Your task to perform on an android device: Open location settings Image 0: 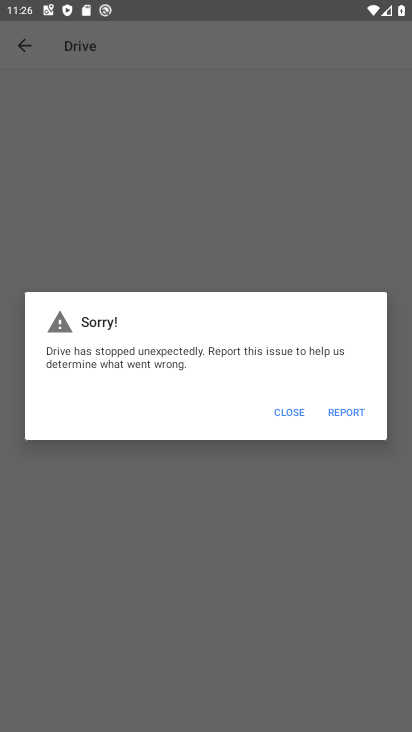
Step 0: press home button
Your task to perform on an android device: Open location settings Image 1: 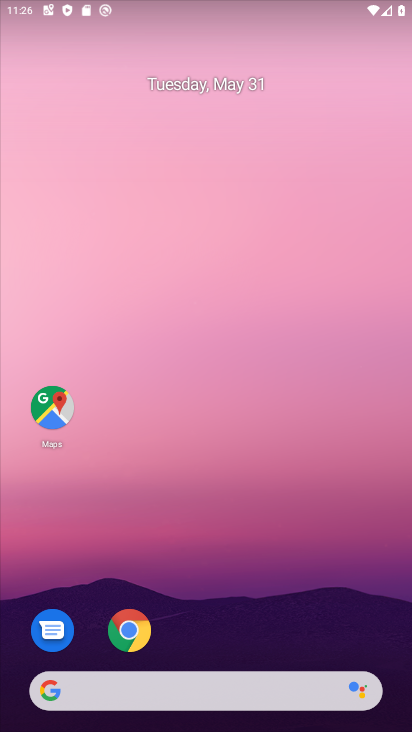
Step 1: drag from (308, 576) to (275, 92)
Your task to perform on an android device: Open location settings Image 2: 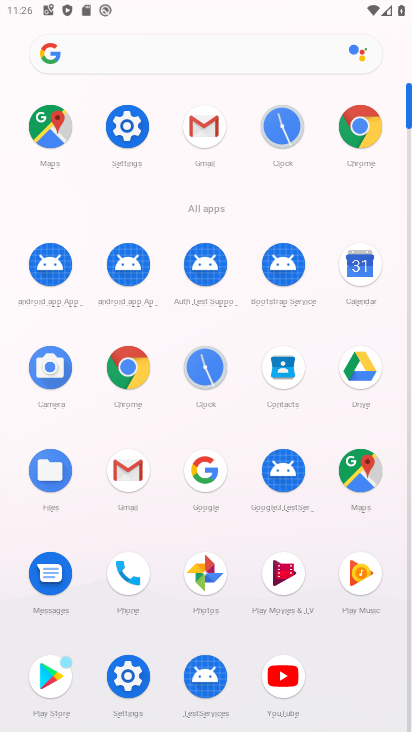
Step 2: click (113, 120)
Your task to perform on an android device: Open location settings Image 3: 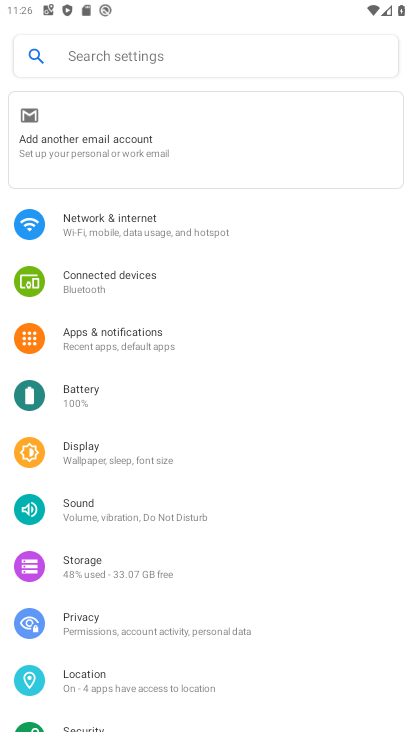
Step 3: click (122, 680)
Your task to perform on an android device: Open location settings Image 4: 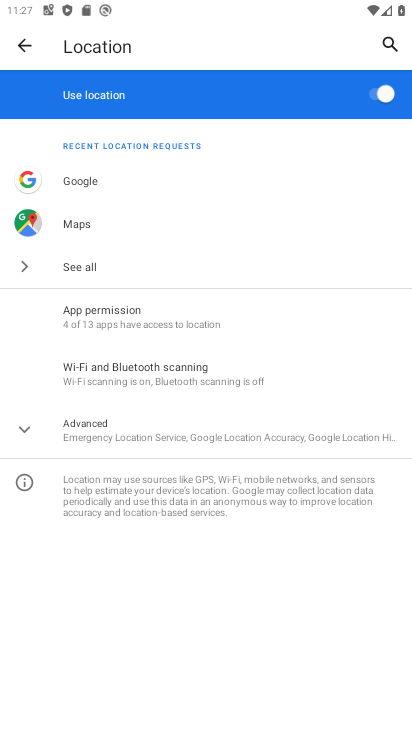
Step 4: task complete